Your task to perform on an android device: allow cookies in the chrome app Image 0: 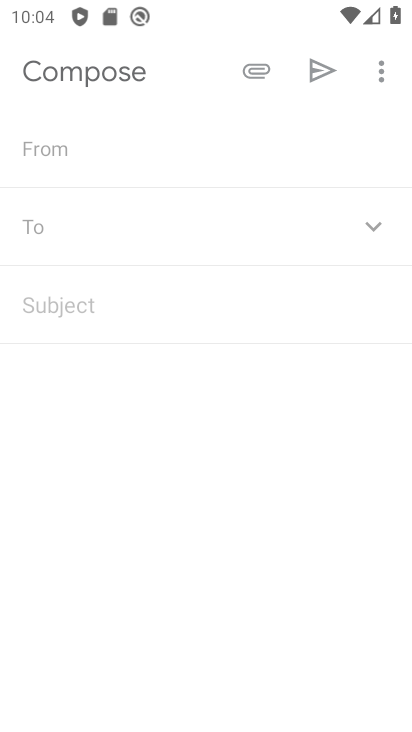
Step 0: drag from (312, 621) to (129, 7)
Your task to perform on an android device: allow cookies in the chrome app Image 1: 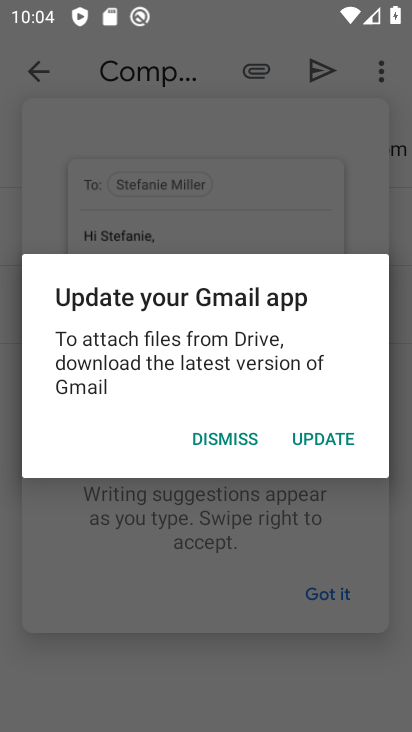
Step 1: click (325, 602)
Your task to perform on an android device: allow cookies in the chrome app Image 2: 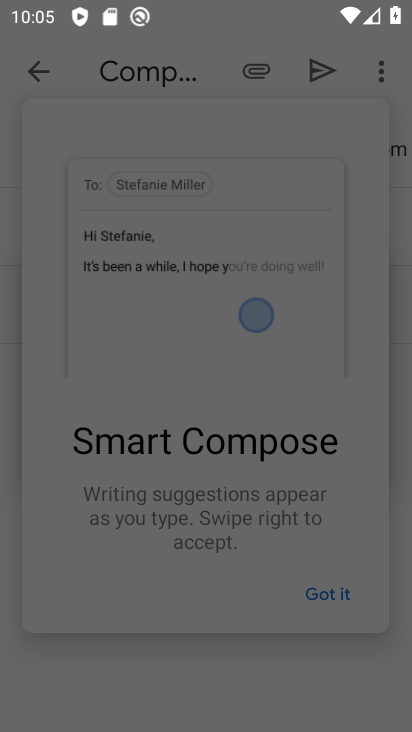
Step 2: click (31, 70)
Your task to perform on an android device: allow cookies in the chrome app Image 3: 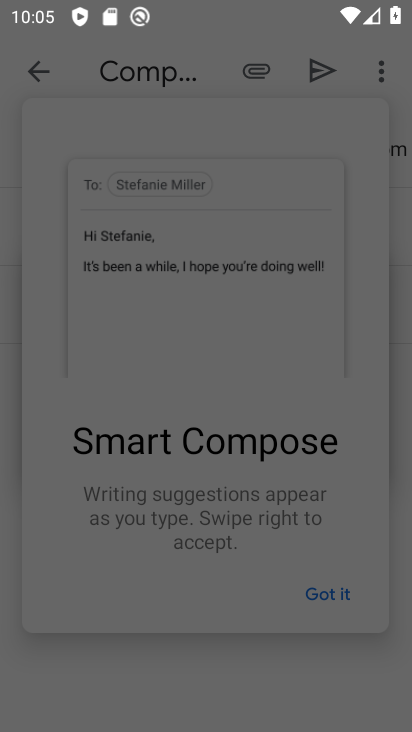
Step 3: click (319, 601)
Your task to perform on an android device: allow cookies in the chrome app Image 4: 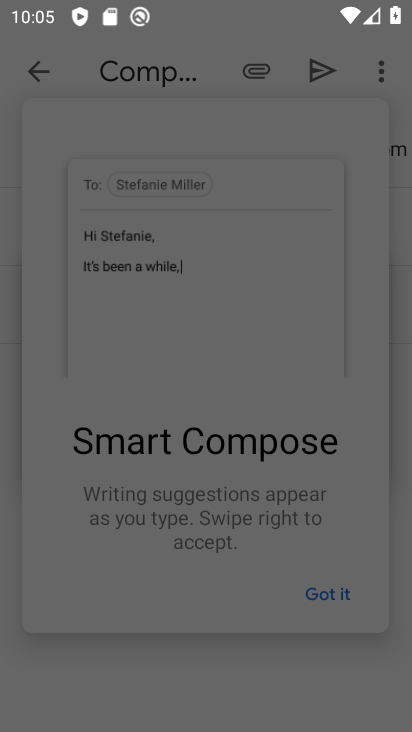
Step 4: click (337, 595)
Your task to perform on an android device: allow cookies in the chrome app Image 5: 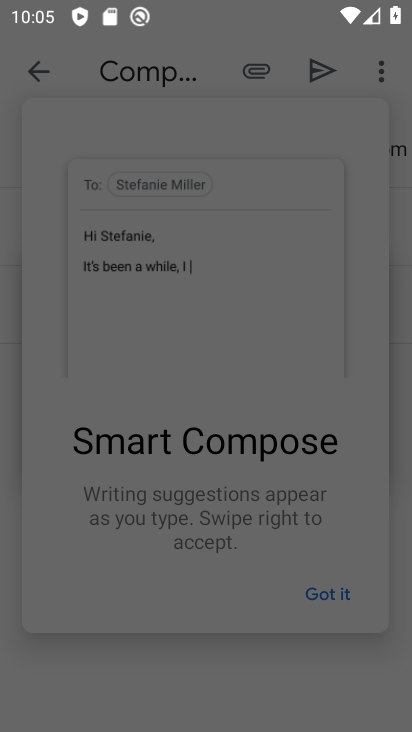
Step 5: click (337, 595)
Your task to perform on an android device: allow cookies in the chrome app Image 6: 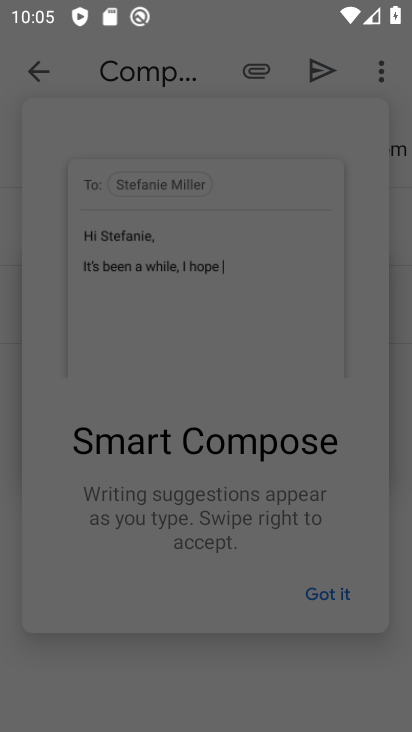
Step 6: click (337, 595)
Your task to perform on an android device: allow cookies in the chrome app Image 7: 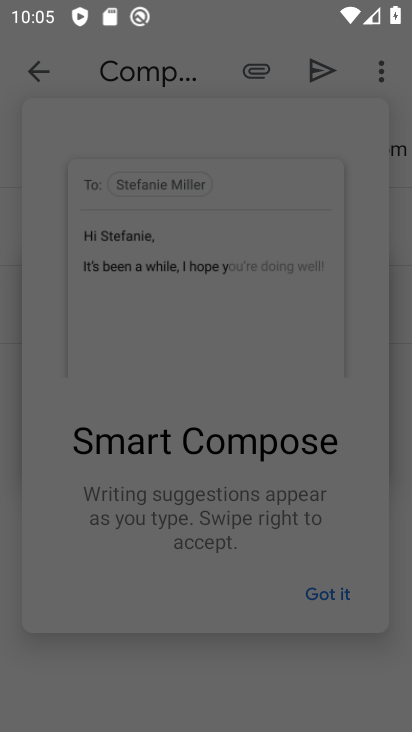
Step 7: click (47, 67)
Your task to perform on an android device: allow cookies in the chrome app Image 8: 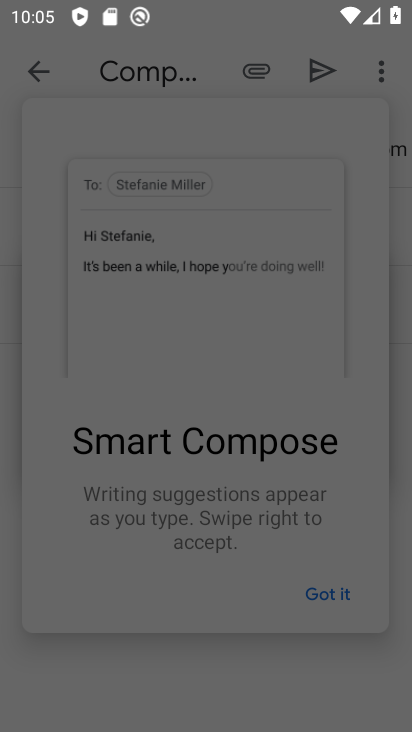
Step 8: click (42, 66)
Your task to perform on an android device: allow cookies in the chrome app Image 9: 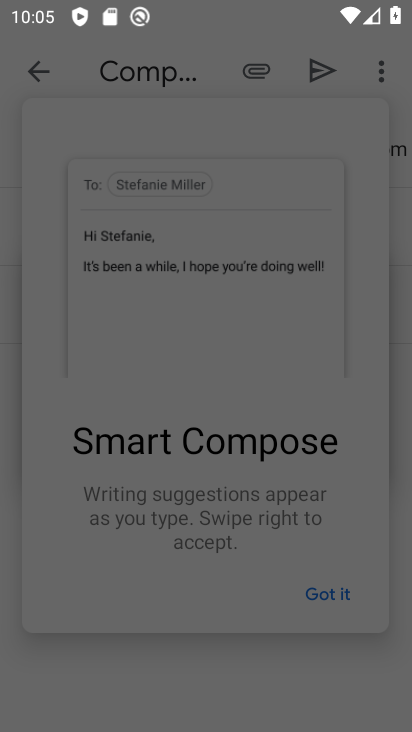
Step 9: click (43, 67)
Your task to perform on an android device: allow cookies in the chrome app Image 10: 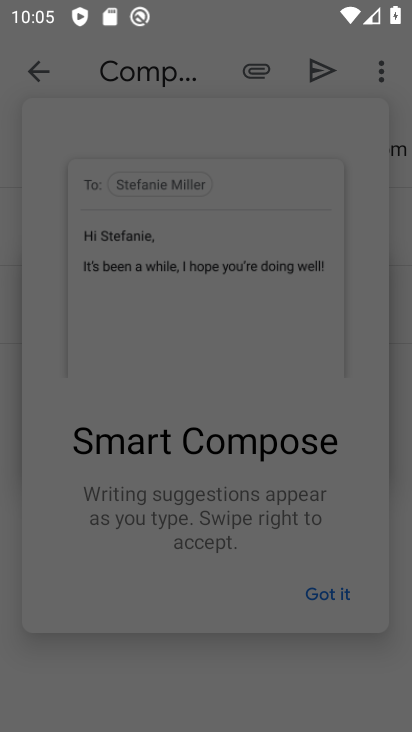
Step 10: click (43, 67)
Your task to perform on an android device: allow cookies in the chrome app Image 11: 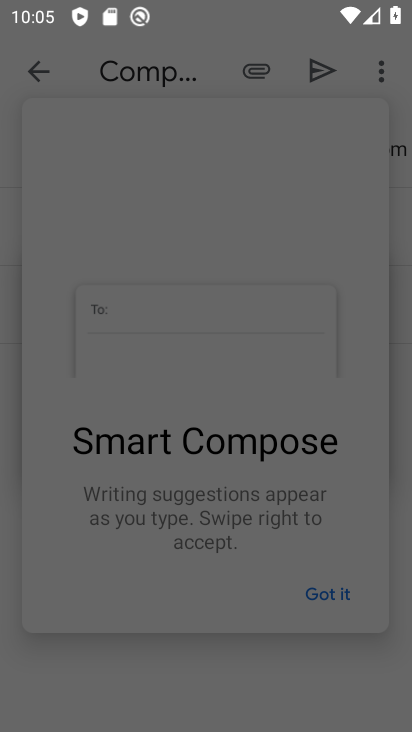
Step 11: press back button
Your task to perform on an android device: allow cookies in the chrome app Image 12: 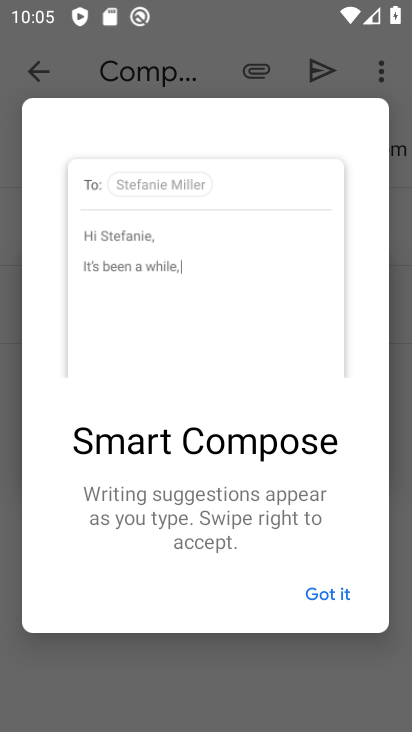
Step 12: press back button
Your task to perform on an android device: allow cookies in the chrome app Image 13: 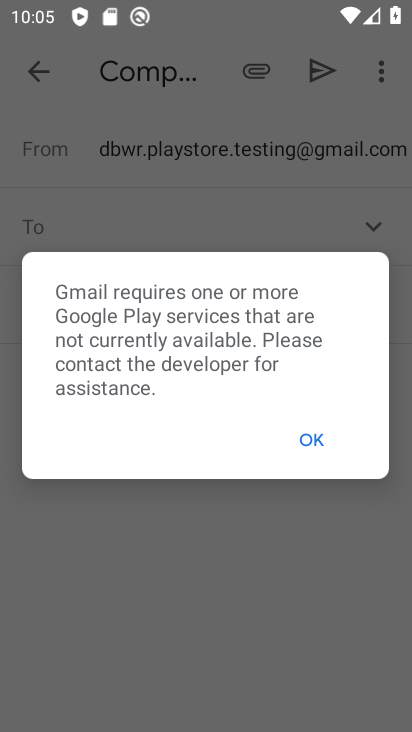
Step 13: press home button
Your task to perform on an android device: allow cookies in the chrome app Image 14: 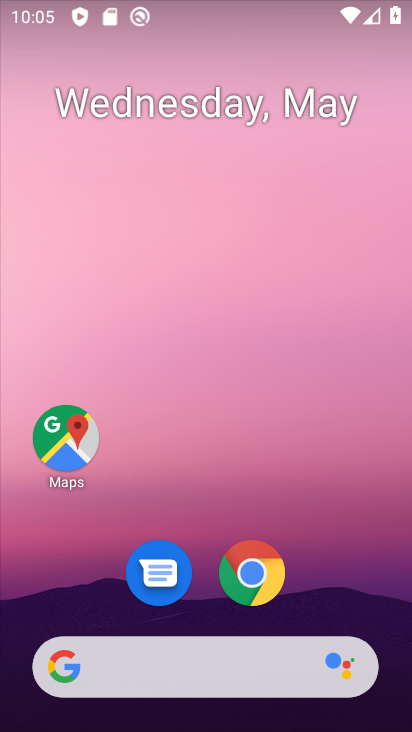
Step 14: drag from (379, 680) to (141, 123)
Your task to perform on an android device: allow cookies in the chrome app Image 15: 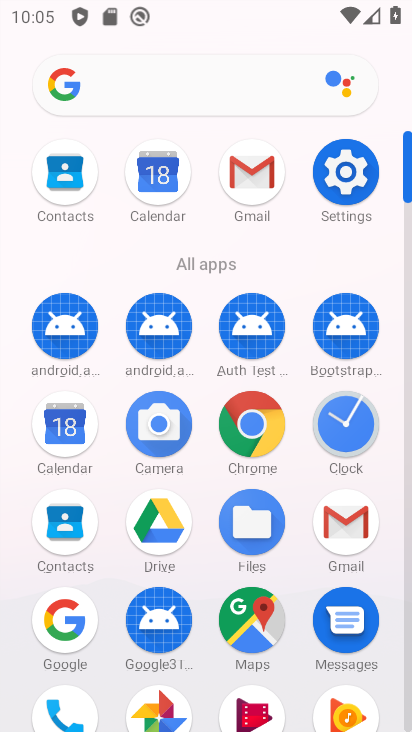
Step 15: click (242, 425)
Your task to perform on an android device: allow cookies in the chrome app Image 16: 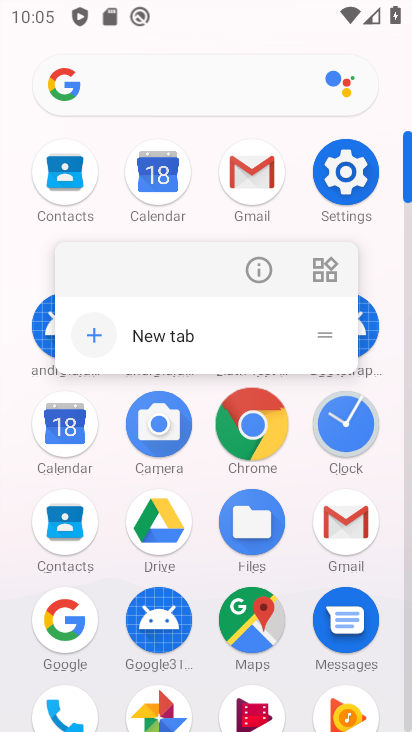
Step 16: click (244, 422)
Your task to perform on an android device: allow cookies in the chrome app Image 17: 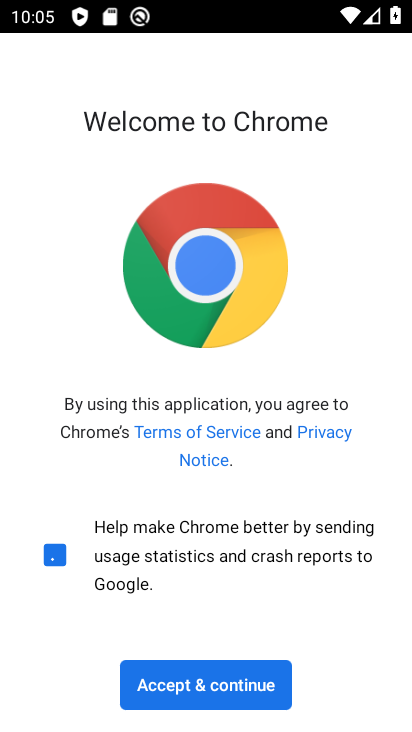
Step 17: click (244, 417)
Your task to perform on an android device: allow cookies in the chrome app Image 18: 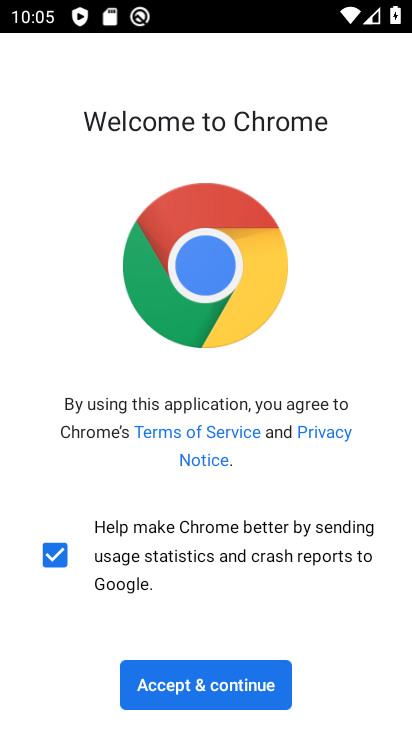
Step 18: click (244, 417)
Your task to perform on an android device: allow cookies in the chrome app Image 19: 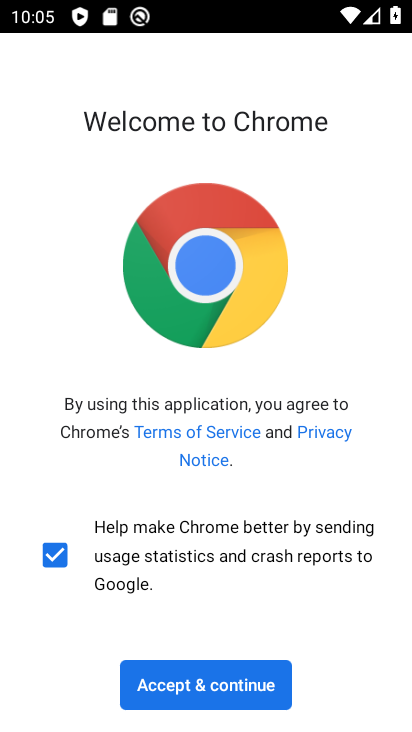
Step 19: click (202, 687)
Your task to perform on an android device: allow cookies in the chrome app Image 20: 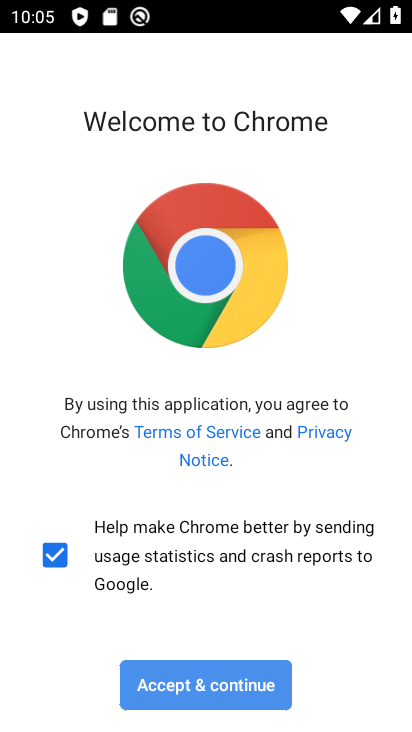
Step 20: click (198, 685)
Your task to perform on an android device: allow cookies in the chrome app Image 21: 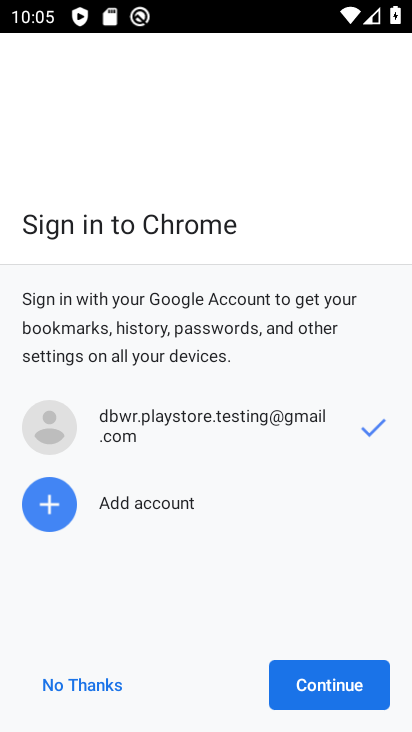
Step 21: click (337, 681)
Your task to perform on an android device: allow cookies in the chrome app Image 22: 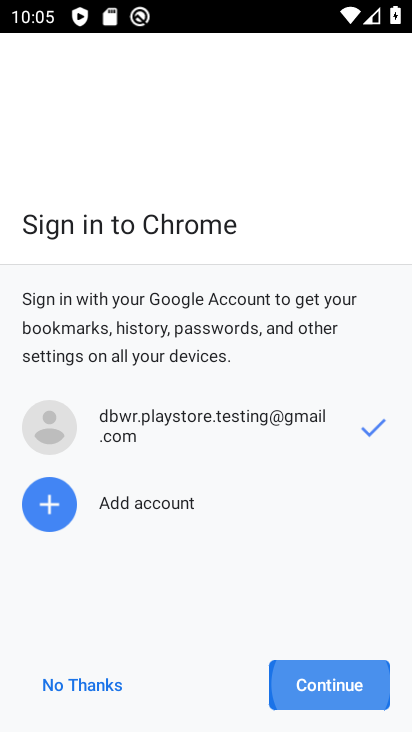
Step 22: click (340, 677)
Your task to perform on an android device: allow cookies in the chrome app Image 23: 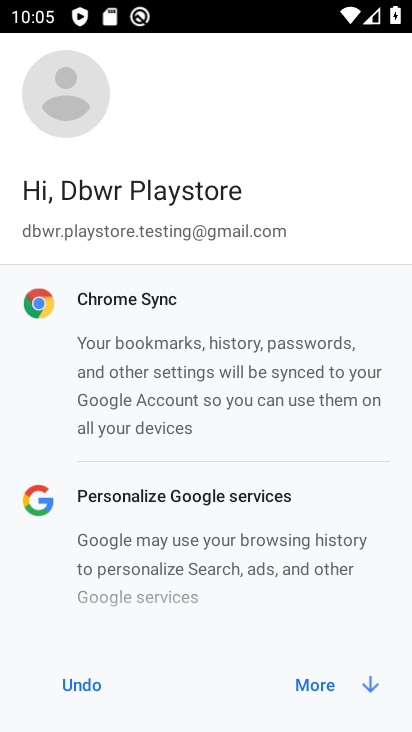
Step 23: click (341, 675)
Your task to perform on an android device: allow cookies in the chrome app Image 24: 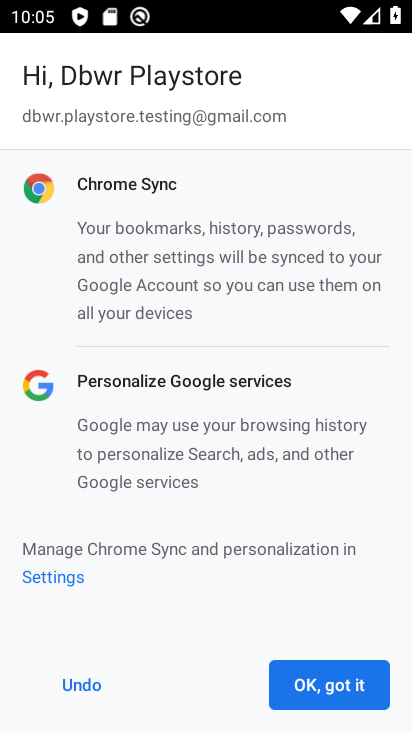
Step 24: click (320, 689)
Your task to perform on an android device: allow cookies in the chrome app Image 25: 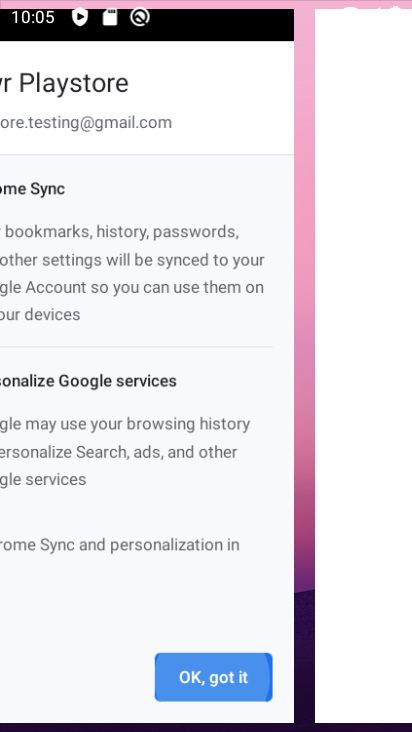
Step 25: click (321, 690)
Your task to perform on an android device: allow cookies in the chrome app Image 26: 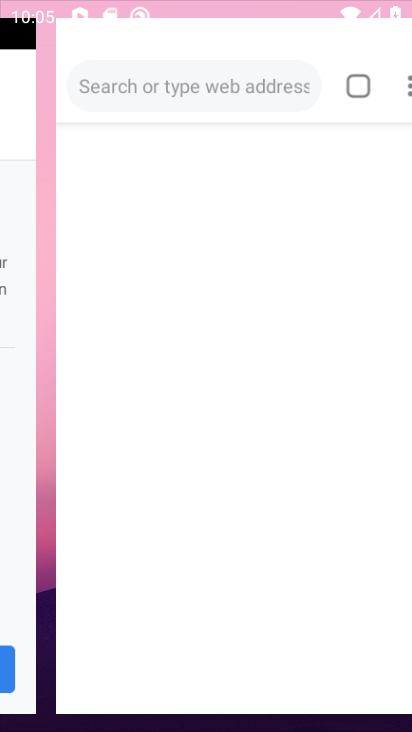
Step 26: click (317, 688)
Your task to perform on an android device: allow cookies in the chrome app Image 27: 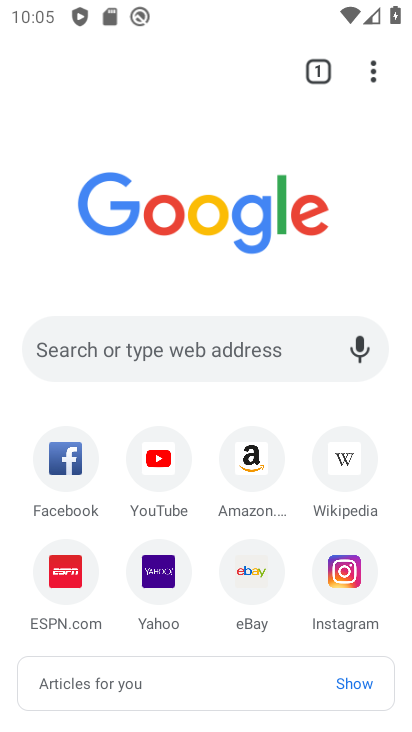
Step 27: drag from (367, 72) to (115, 603)
Your task to perform on an android device: allow cookies in the chrome app Image 28: 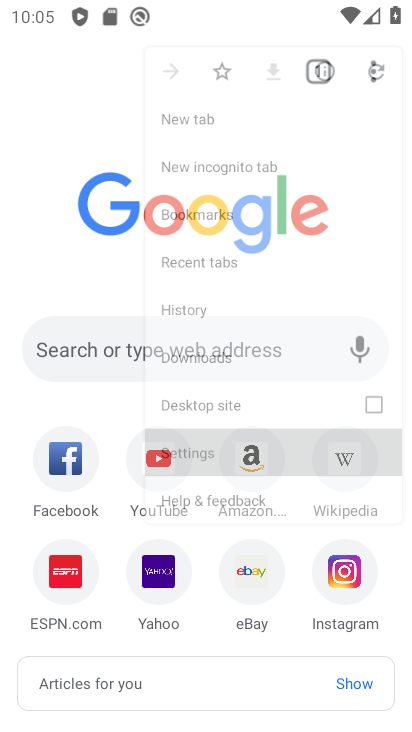
Step 28: click (115, 603)
Your task to perform on an android device: allow cookies in the chrome app Image 29: 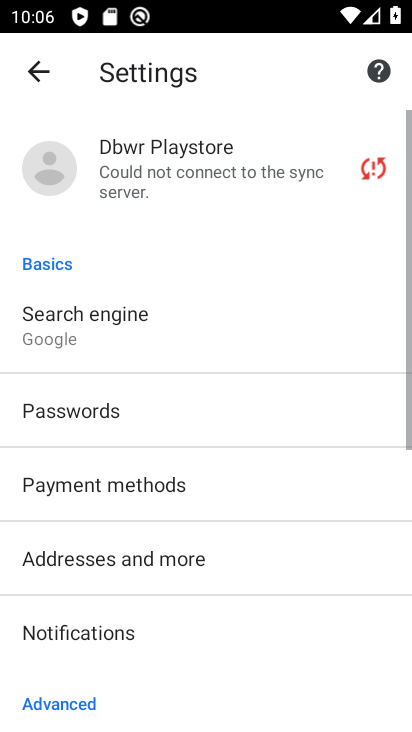
Step 29: drag from (103, 401) to (69, 8)
Your task to perform on an android device: allow cookies in the chrome app Image 30: 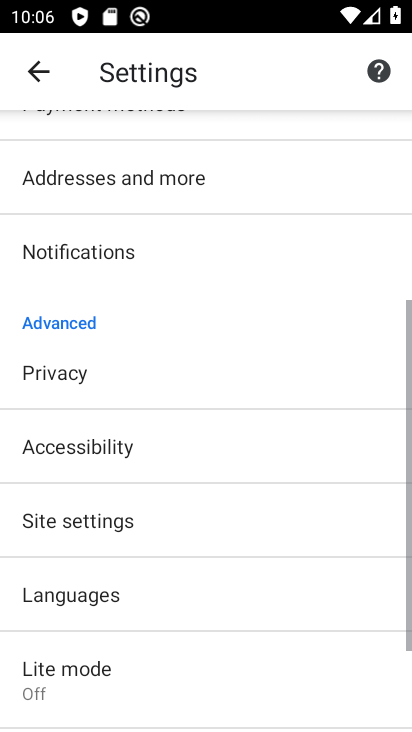
Step 30: drag from (111, 255) to (115, 43)
Your task to perform on an android device: allow cookies in the chrome app Image 31: 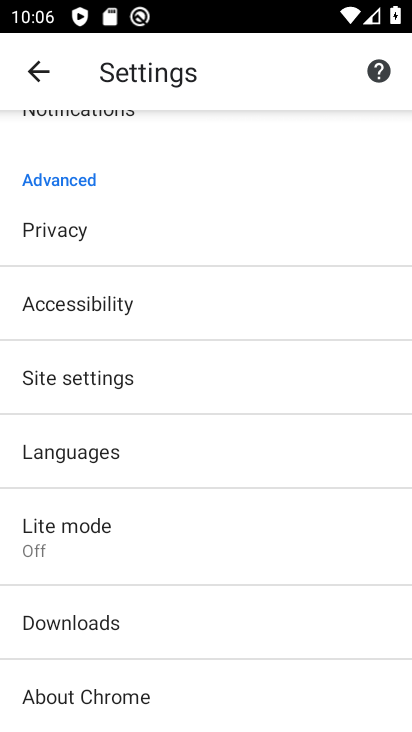
Step 31: drag from (129, 596) to (114, 183)
Your task to perform on an android device: allow cookies in the chrome app Image 32: 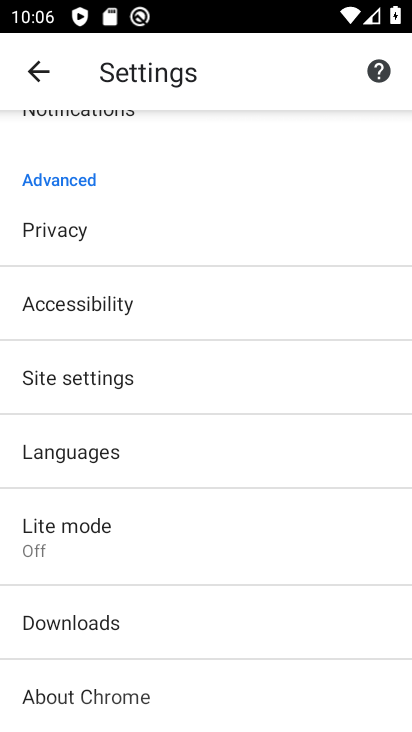
Step 32: drag from (117, 504) to (79, 204)
Your task to perform on an android device: allow cookies in the chrome app Image 33: 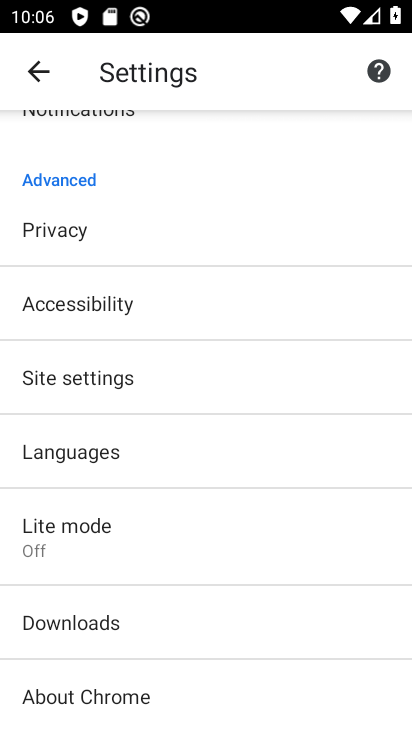
Step 33: click (59, 372)
Your task to perform on an android device: allow cookies in the chrome app Image 34: 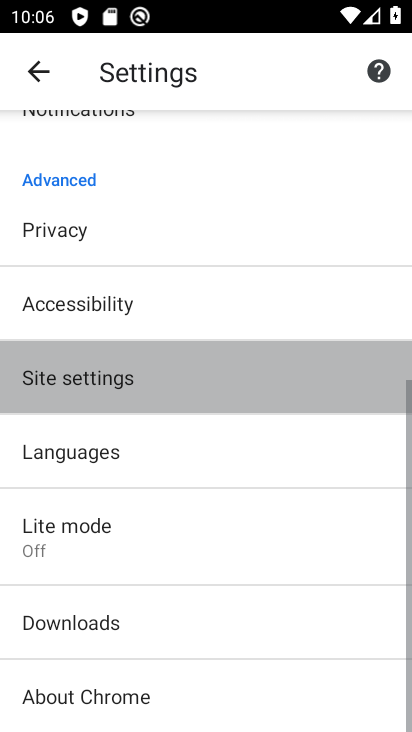
Step 34: click (58, 371)
Your task to perform on an android device: allow cookies in the chrome app Image 35: 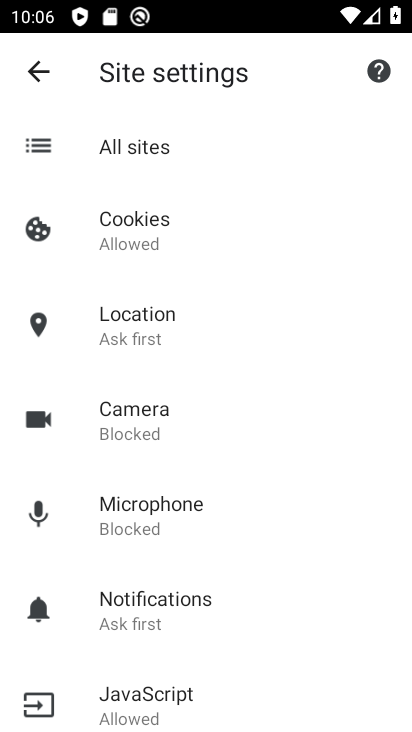
Step 35: drag from (107, 568) to (38, 231)
Your task to perform on an android device: allow cookies in the chrome app Image 36: 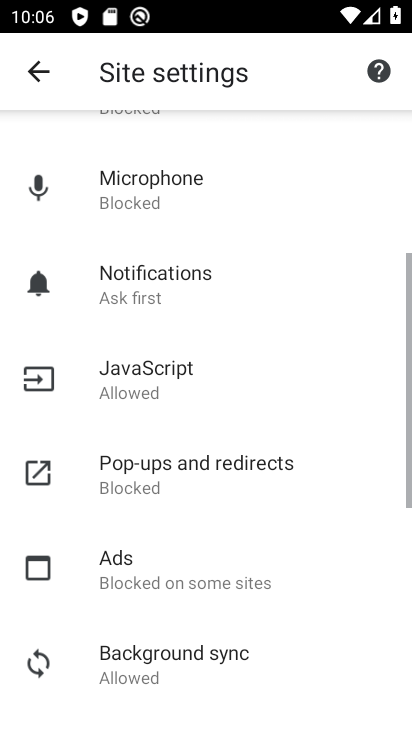
Step 36: drag from (83, 424) to (91, 101)
Your task to perform on an android device: allow cookies in the chrome app Image 37: 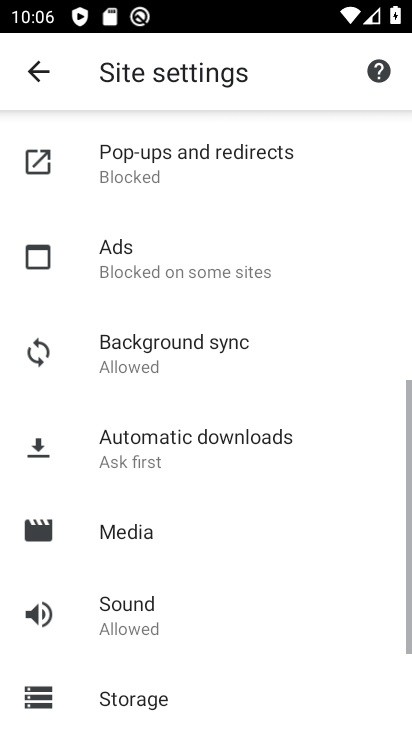
Step 37: drag from (96, 314) to (135, 75)
Your task to perform on an android device: allow cookies in the chrome app Image 38: 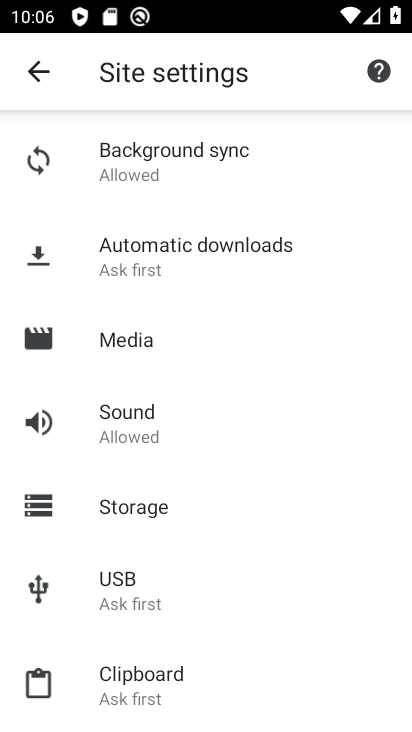
Step 38: drag from (120, 263) to (193, 570)
Your task to perform on an android device: allow cookies in the chrome app Image 39: 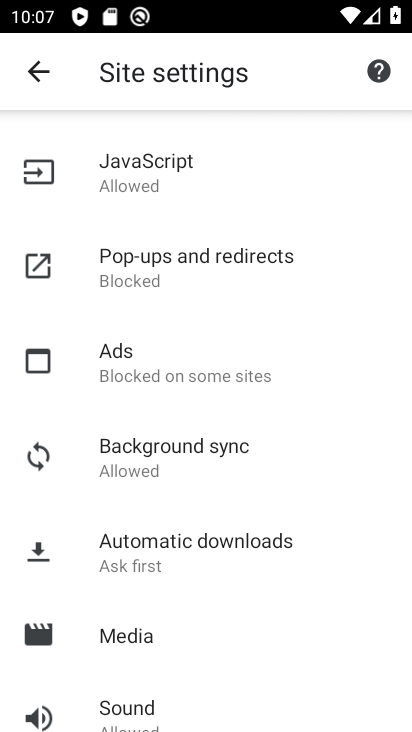
Step 39: drag from (126, 277) to (181, 503)
Your task to perform on an android device: allow cookies in the chrome app Image 40: 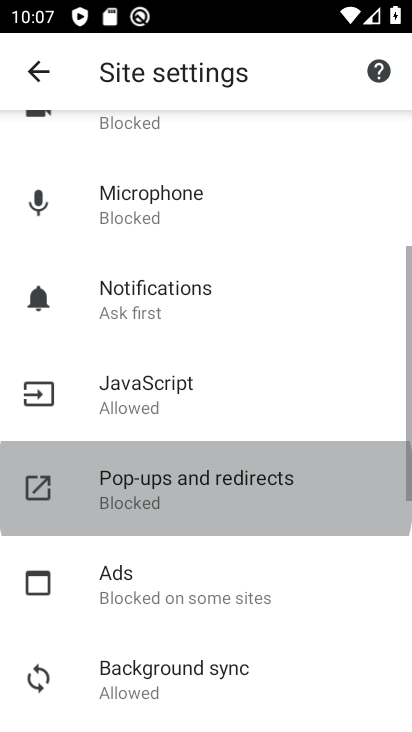
Step 40: drag from (170, 267) to (170, 532)
Your task to perform on an android device: allow cookies in the chrome app Image 41: 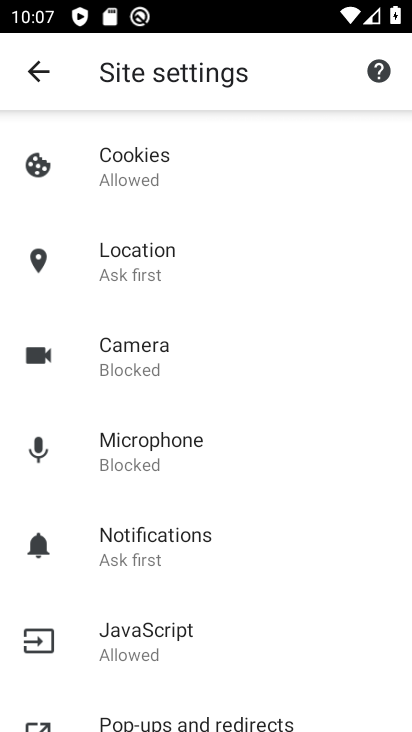
Step 41: click (133, 165)
Your task to perform on an android device: allow cookies in the chrome app Image 42: 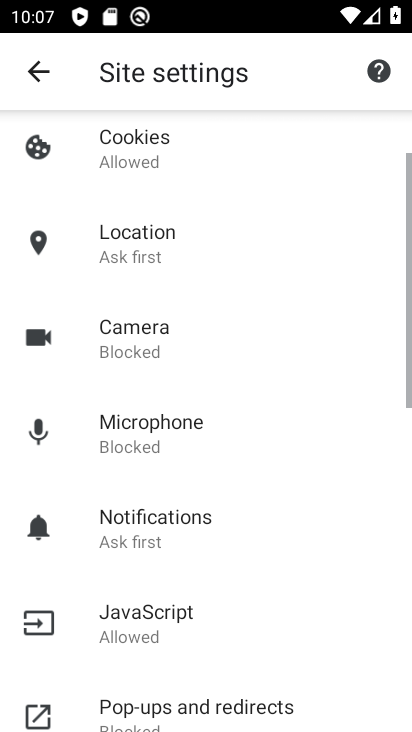
Step 42: click (121, 165)
Your task to perform on an android device: allow cookies in the chrome app Image 43: 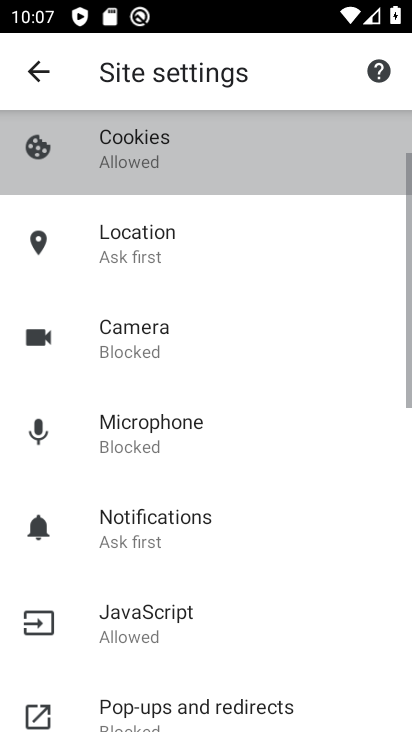
Step 43: click (119, 173)
Your task to perform on an android device: allow cookies in the chrome app Image 44: 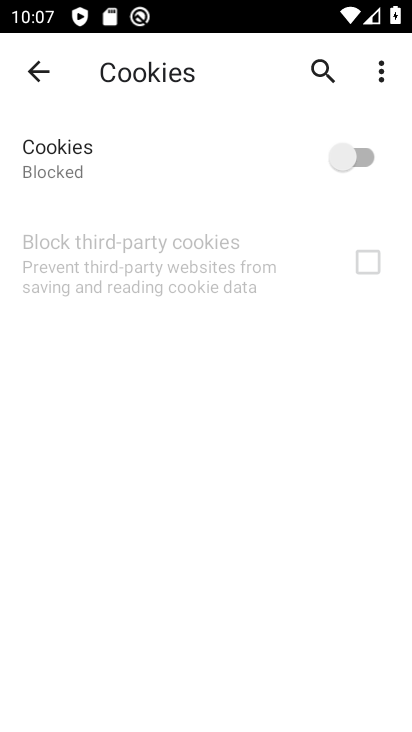
Step 44: click (122, 169)
Your task to perform on an android device: allow cookies in the chrome app Image 45: 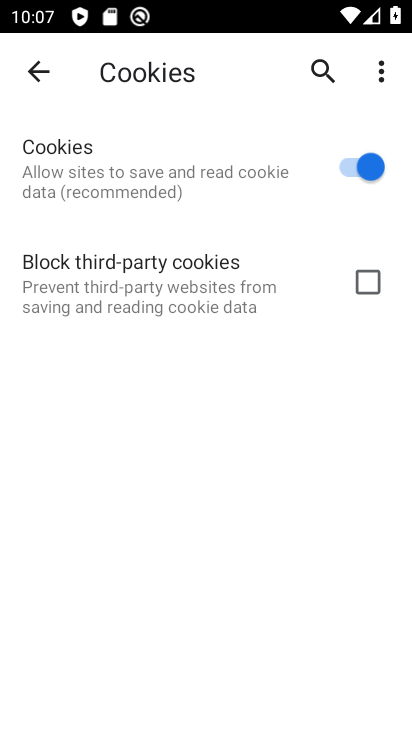
Step 45: click (346, 161)
Your task to perform on an android device: allow cookies in the chrome app Image 46: 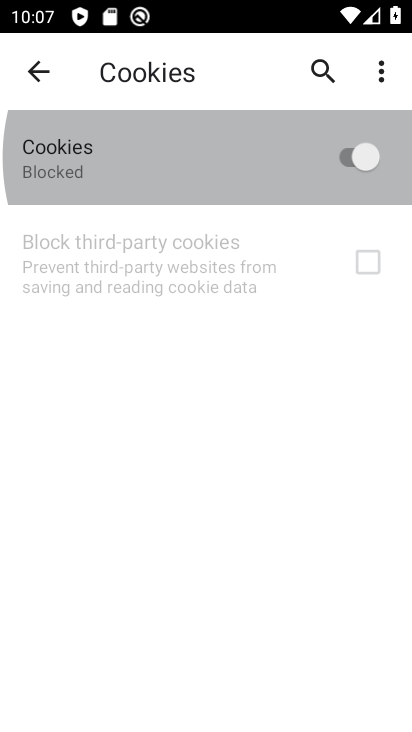
Step 46: task complete